Your task to perform on an android device: turn off location Image 0: 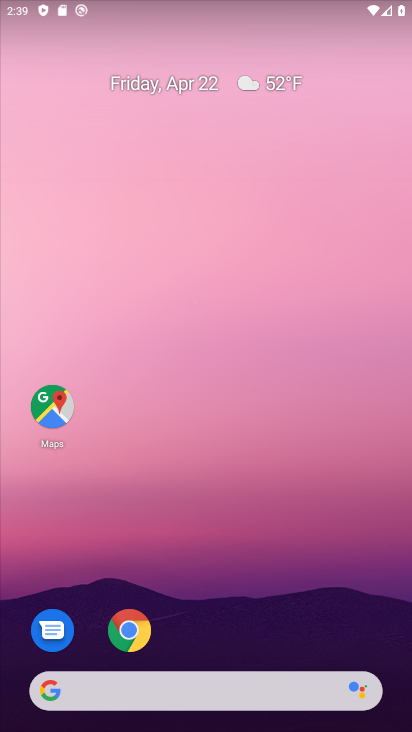
Step 0: drag from (404, 679) to (219, 209)
Your task to perform on an android device: turn off location Image 1: 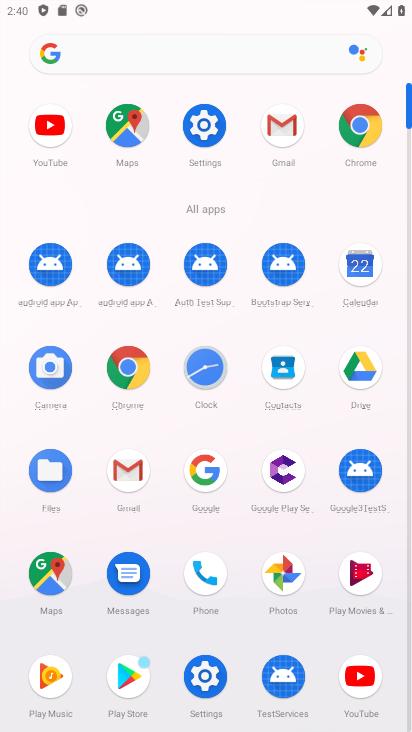
Step 1: click (202, 669)
Your task to perform on an android device: turn off location Image 2: 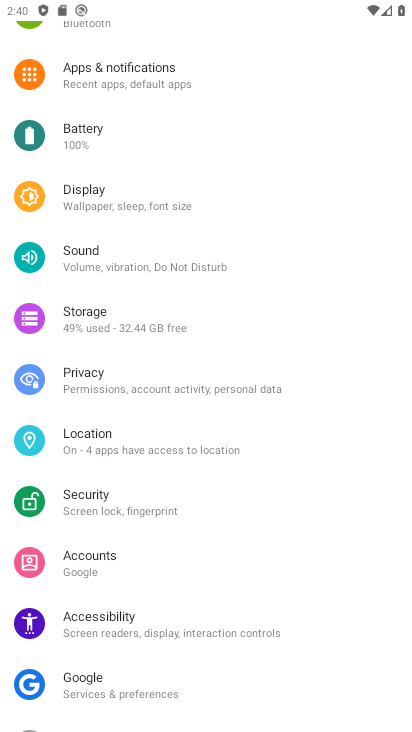
Step 2: click (120, 439)
Your task to perform on an android device: turn off location Image 3: 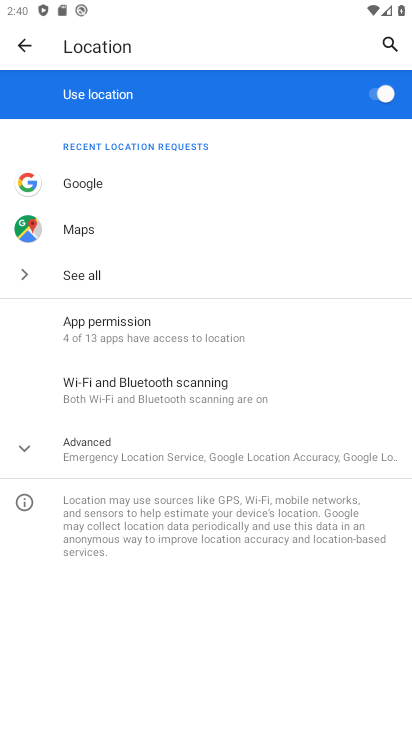
Step 3: click (375, 93)
Your task to perform on an android device: turn off location Image 4: 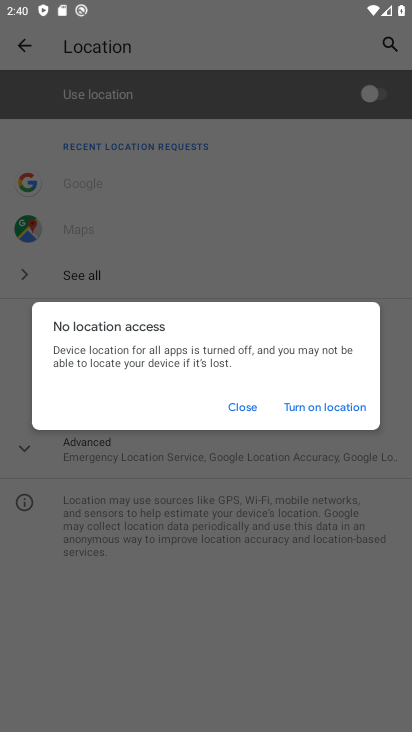
Step 4: click (230, 401)
Your task to perform on an android device: turn off location Image 5: 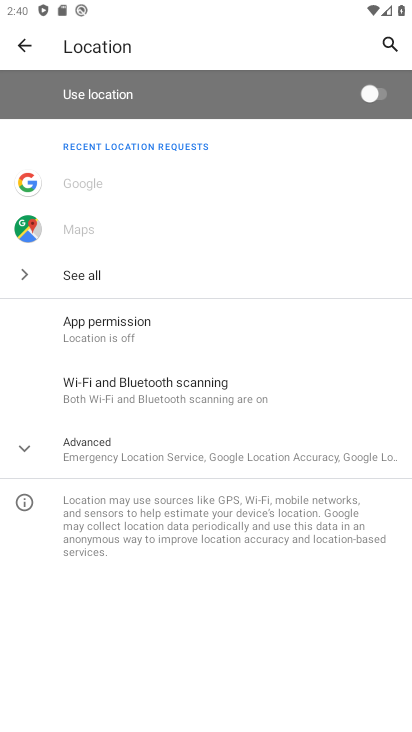
Step 5: task complete